Your task to perform on an android device: Check the weather Image 0: 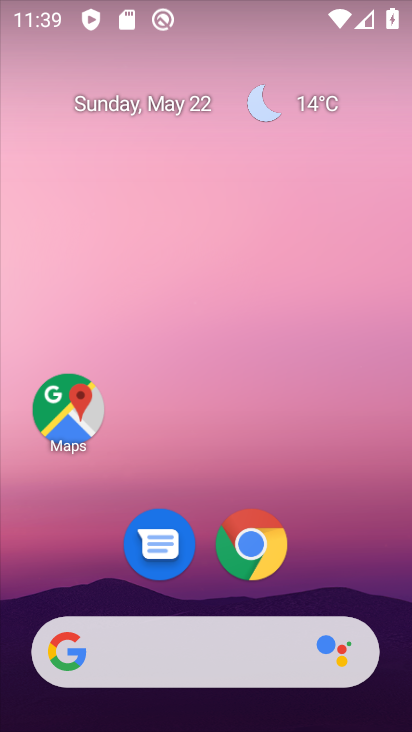
Step 0: click (266, 546)
Your task to perform on an android device: Check the weather Image 1: 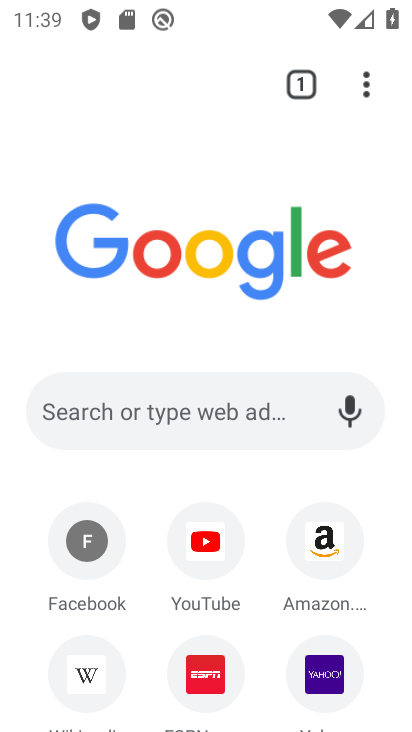
Step 1: click (194, 402)
Your task to perform on an android device: Check the weather Image 2: 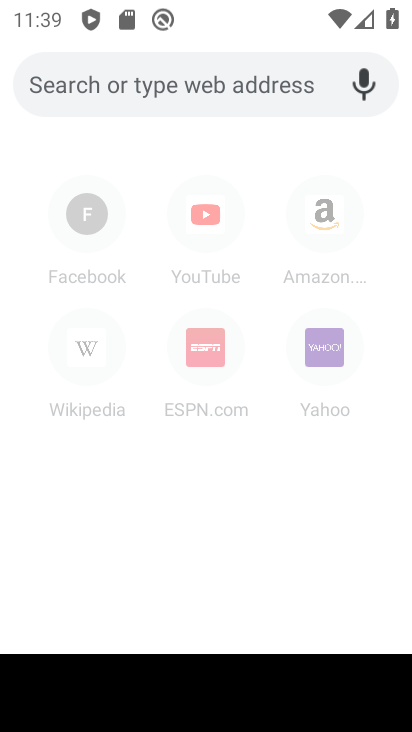
Step 2: type "weather"
Your task to perform on an android device: Check the weather Image 3: 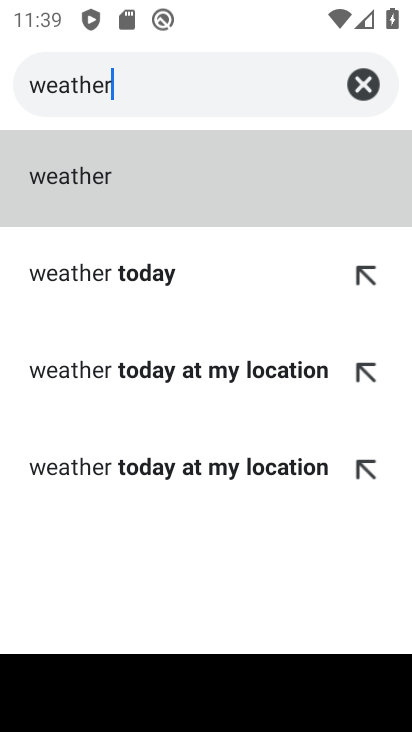
Step 3: click (75, 175)
Your task to perform on an android device: Check the weather Image 4: 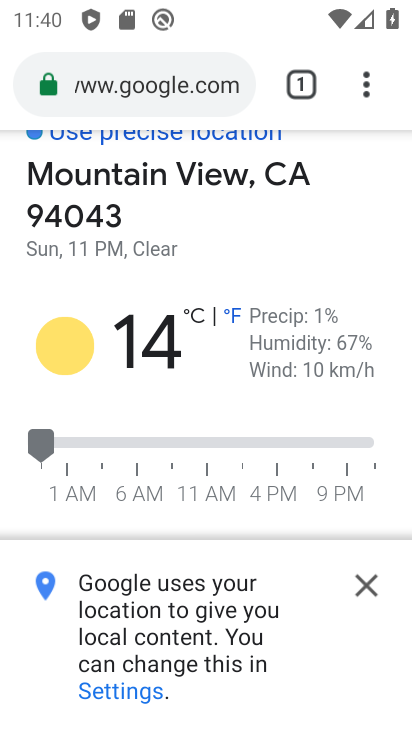
Step 4: task complete